Your task to perform on an android device: show emergency info Image 0: 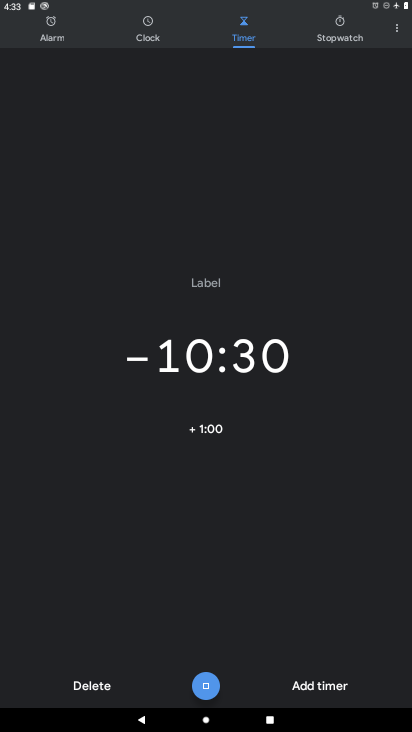
Step 0: press home button
Your task to perform on an android device: show emergency info Image 1: 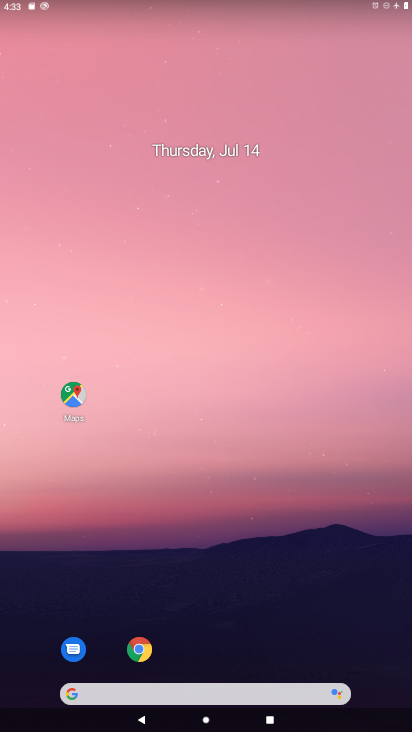
Step 1: drag from (227, 633) to (230, 40)
Your task to perform on an android device: show emergency info Image 2: 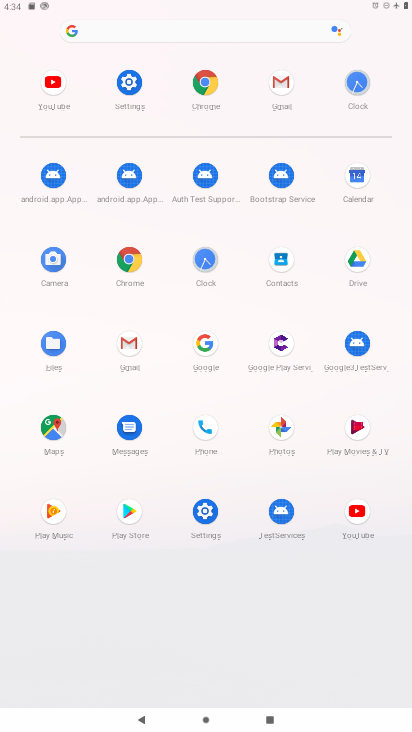
Step 2: click (220, 525)
Your task to perform on an android device: show emergency info Image 3: 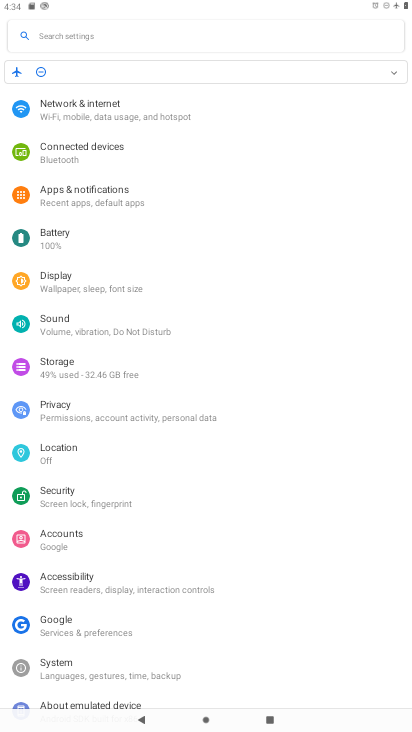
Step 3: drag from (113, 641) to (131, 235)
Your task to perform on an android device: show emergency info Image 4: 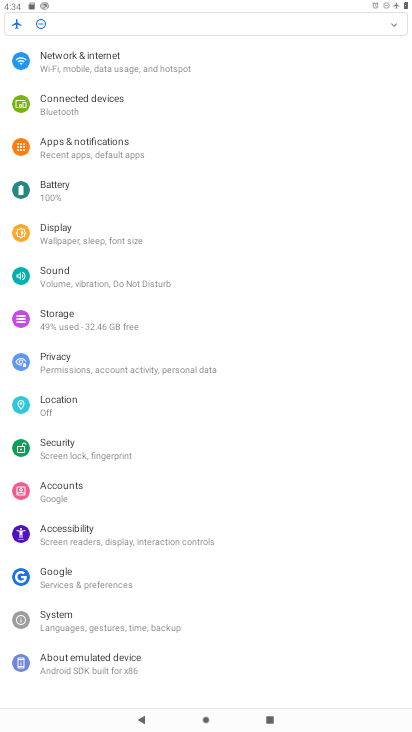
Step 4: click (114, 675)
Your task to perform on an android device: show emergency info Image 5: 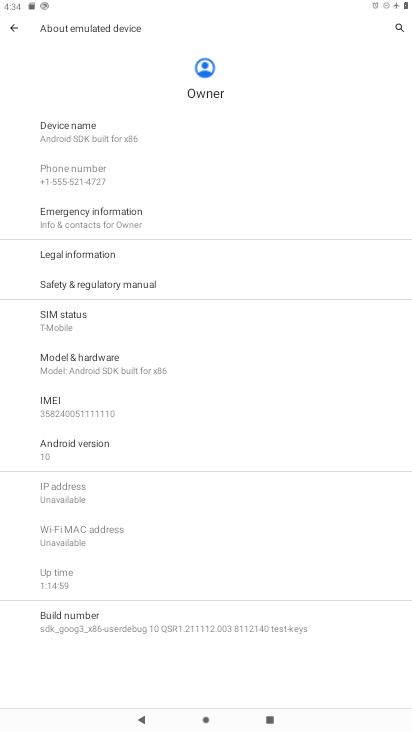
Step 5: click (127, 219)
Your task to perform on an android device: show emergency info Image 6: 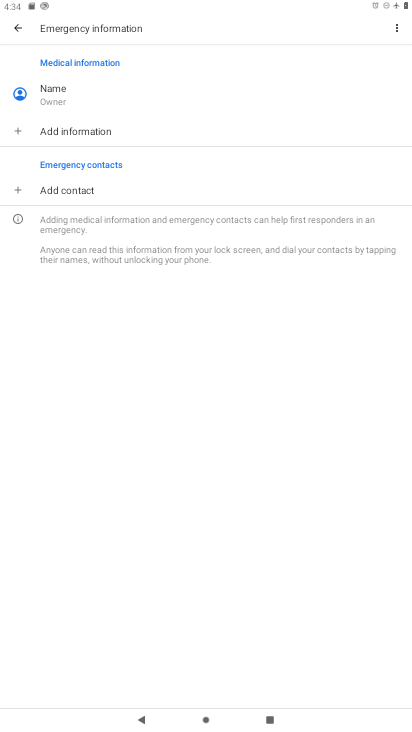
Step 6: task complete